Your task to perform on an android device: Go to privacy settings Image 0: 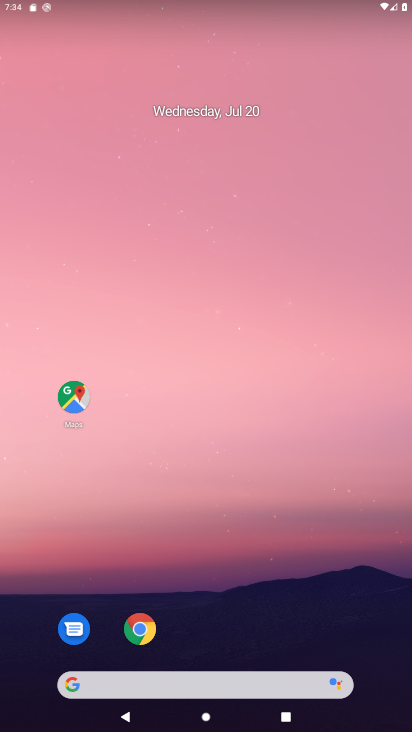
Step 0: drag from (331, 608) to (315, 157)
Your task to perform on an android device: Go to privacy settings Image 1: 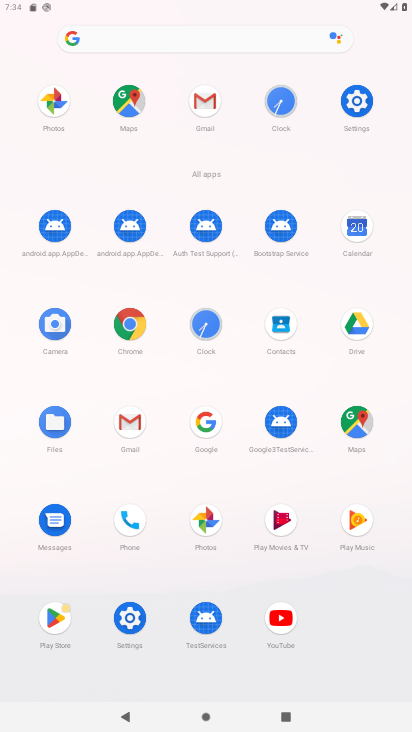
Step 1: click (133, 627)
Your task to perform on an android device: Go to privacy settings Image 2: 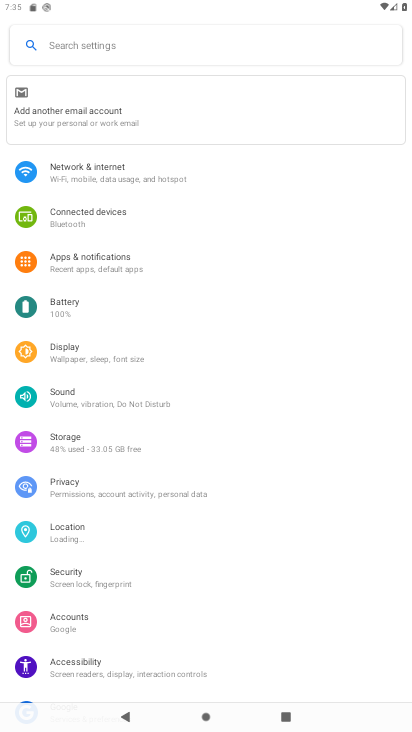
Step 2: click (93, 496)
Your task to perform on an android device: Go to privacy settings Image 3: 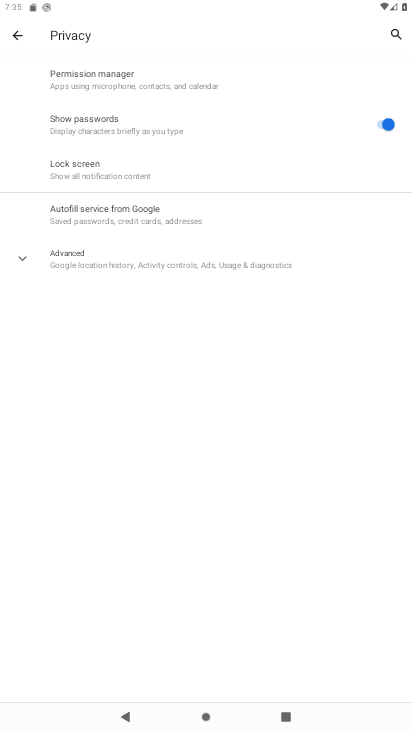
Step 3: task complete